Your task to perform on an android device: empty trash in google photos Image 0: 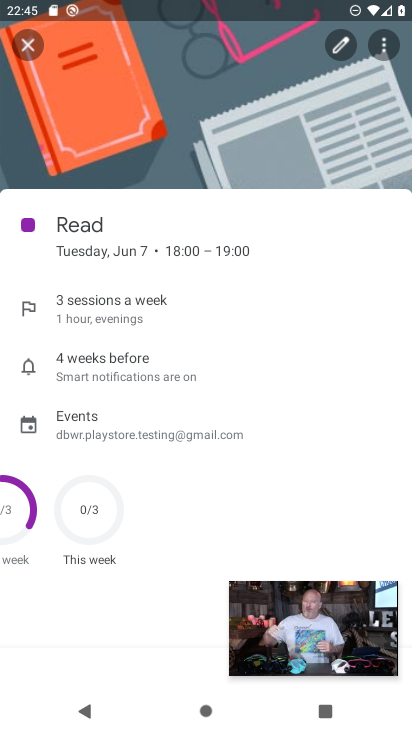
Step 0: press home button
Your task to perform on an android device: empty trash in google photos Image 1: 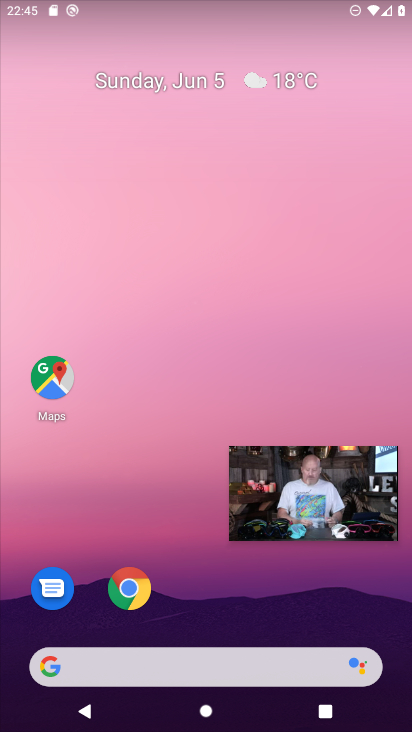
Step 1: drag from (220, 602) to (242, 63)
Your task to perform on an android device: empty trash in google photos Image 2: 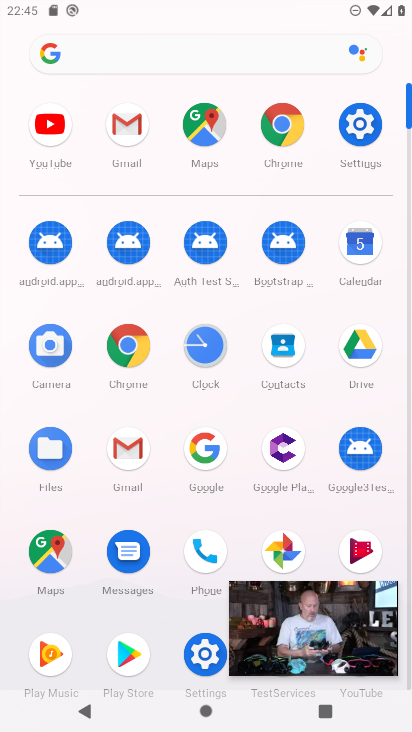
Step 2: click (277, 545)
Your task to perform on an android device: empty trash in google photos Image 3: 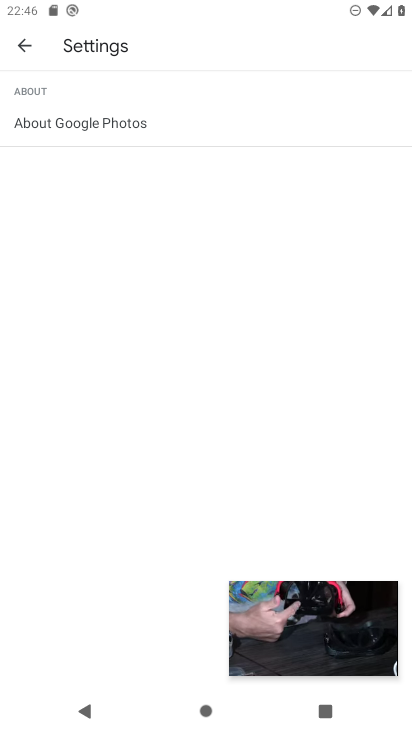
Step 3: press back button
Your task to perform on an android device: empty trash in google photos Image 4: 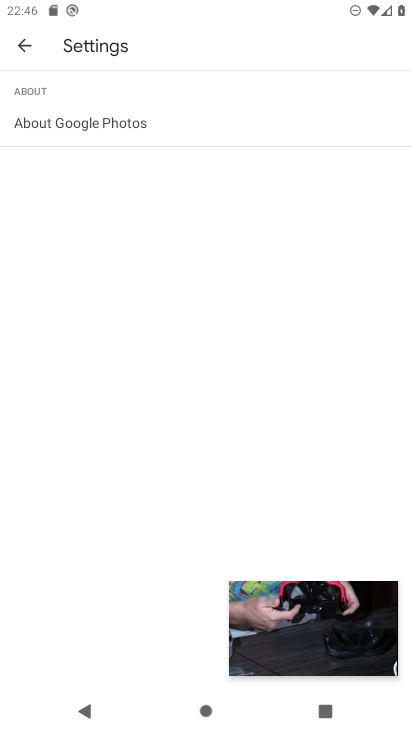
Step 4: press back button
Your task to perform on an android device: empty trash in google photos Image 5: 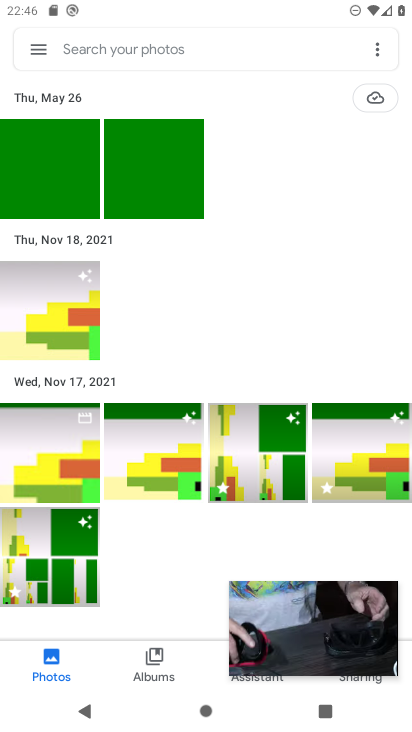
Step 5: click (34, 50)
Your task to perform on an android device: empty trash in google photos Image 6: 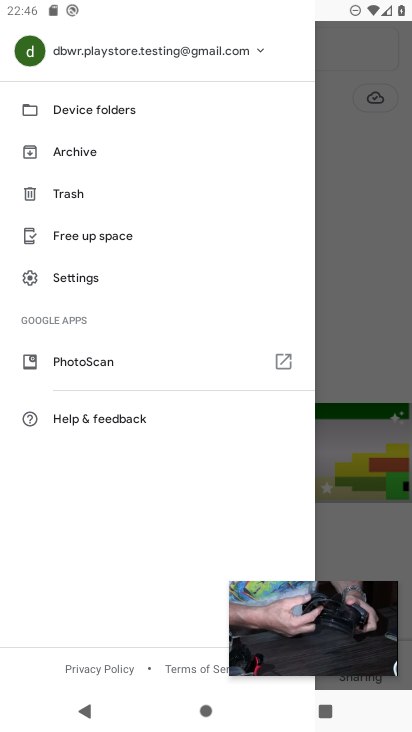
Step 6: click (71, 194)
Your task to perform on an android device: empty trash in google photos Image 7: 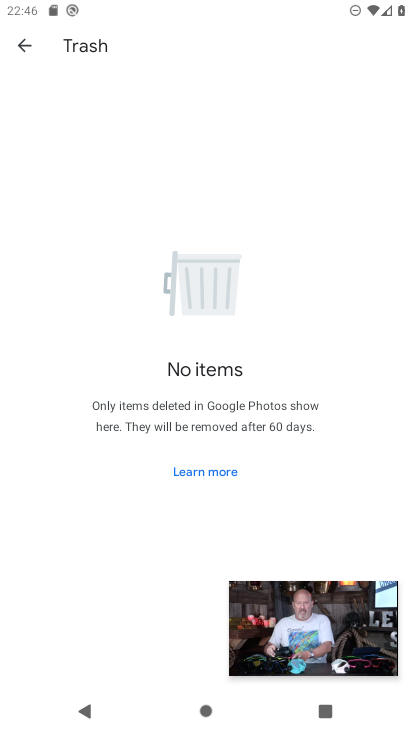
Step 7: task complete